Your task to perform on an android device: install app "Nova Launcher" Image 0: 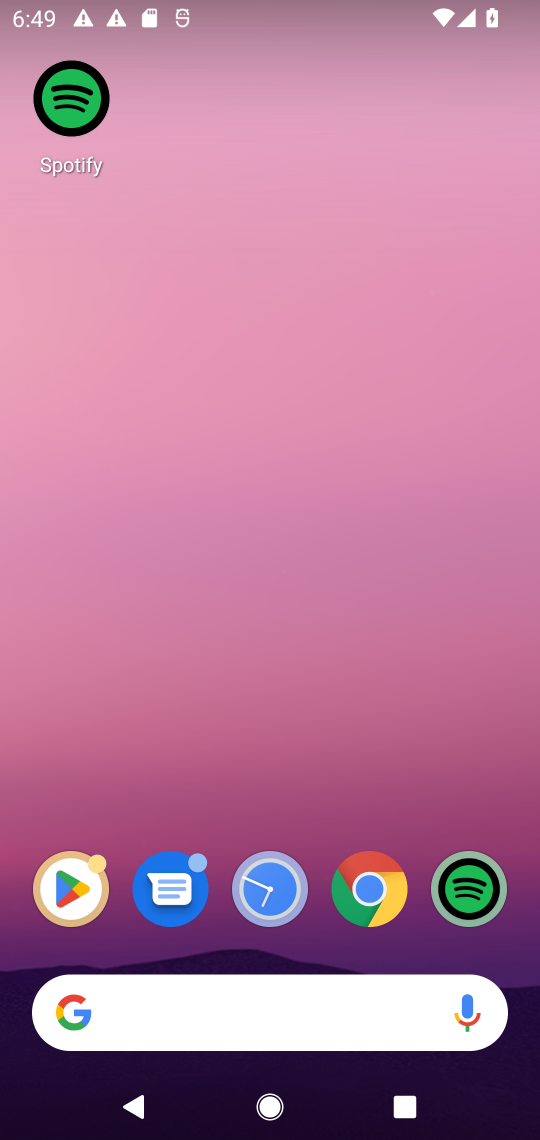
Step 0: click (110, 67)
Your task to perform on an android device: install app "Nova Launcher" Image 1: 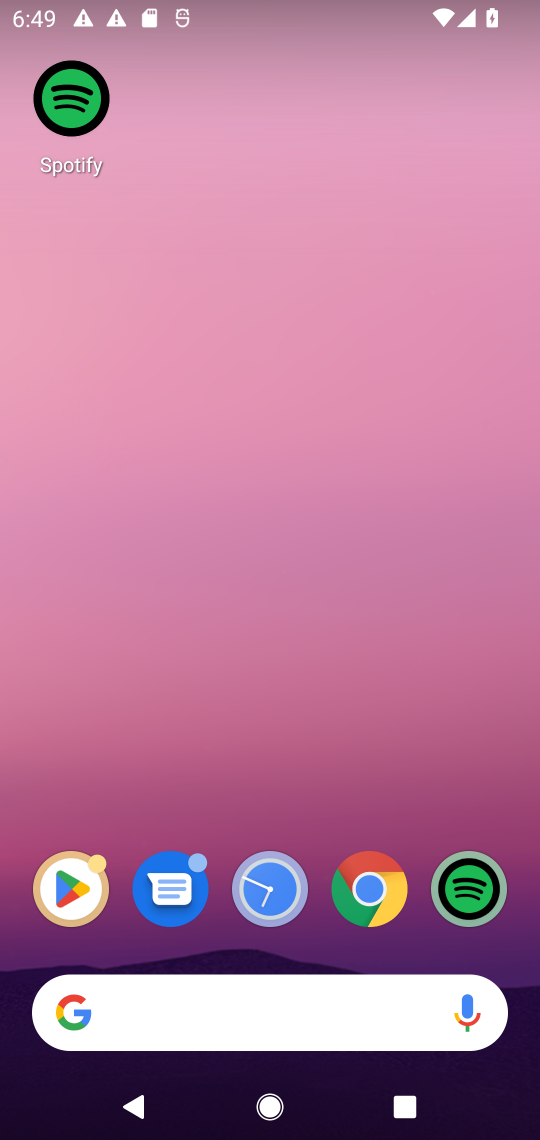
Step 1: drag from (225, 804) to (145, 249)
Your task to perform on an android device: install app "Nova Launcher" Image 2: 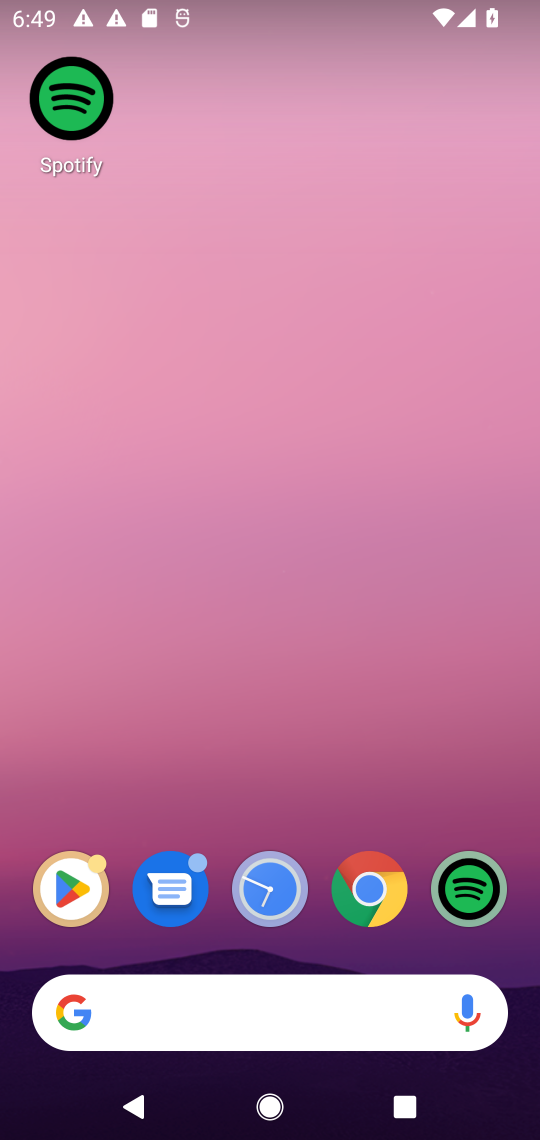
Step 2: drag from (270, 638) to (237, 363)
Your task to perform on an android device: install app "Nova Launcher" Image 3: 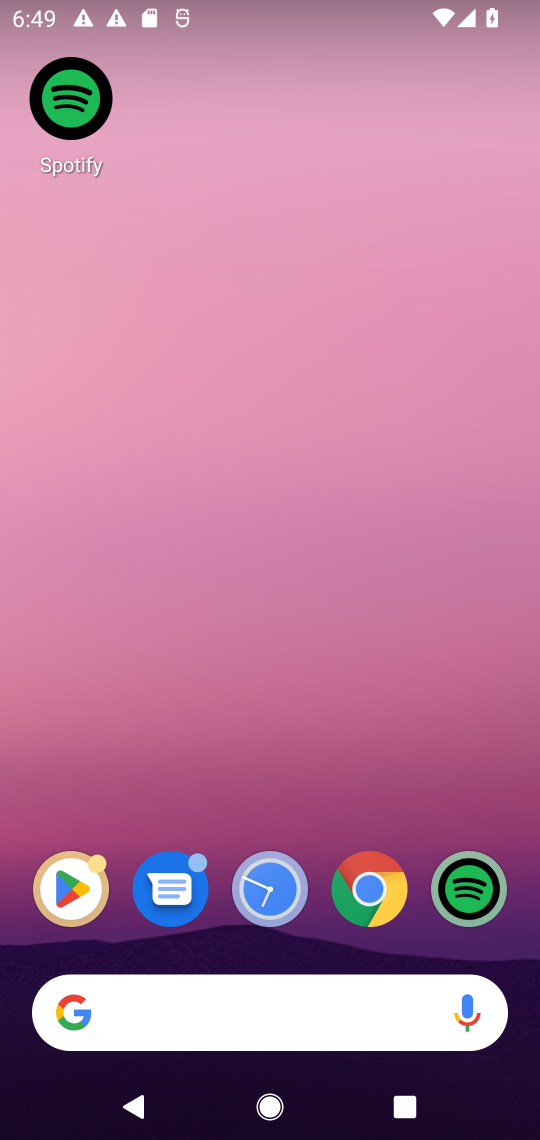
Step 3: drag from (244, 877) to (199, 256)
Your task to perform on an android device: install app "Nova Launcher" Image 4: 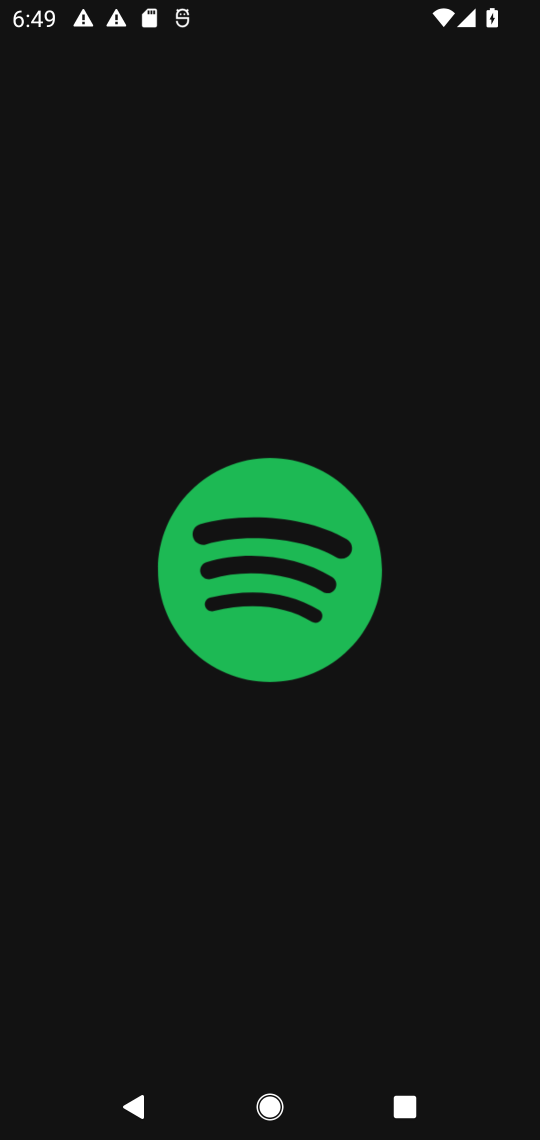
Step 4: drag from (294, 897) to (207, 349)
Your task to perform on an android device: install app "Nova Launcher" Image 5: 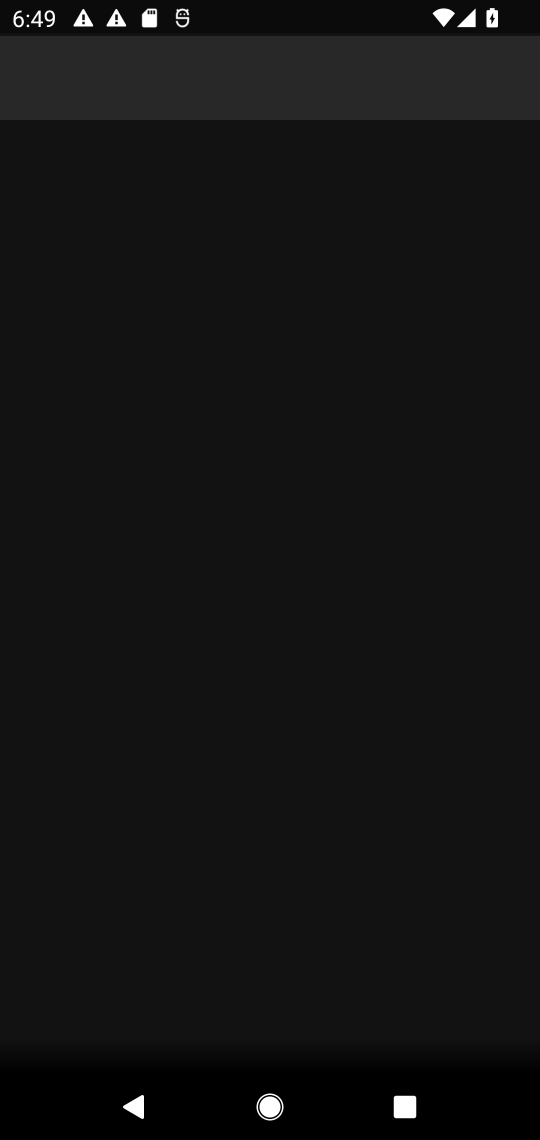
Step 5: press back button
Your task to perform on an android device: install app "Nova Launcher" Image 6: 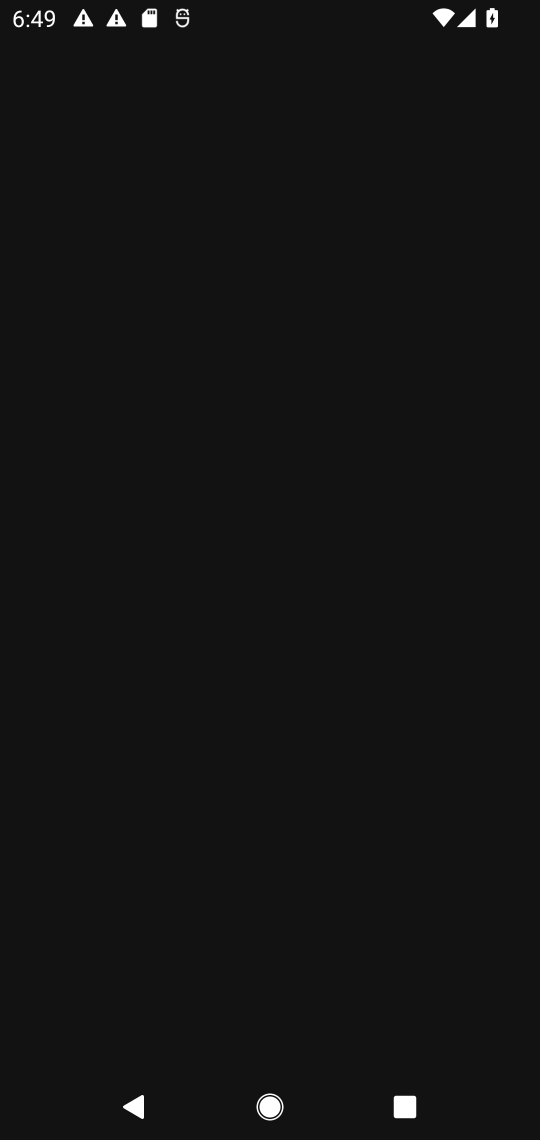
Step 6: press back button
Your task to perform on an android device: install app "Nova Launcher" Image 7: 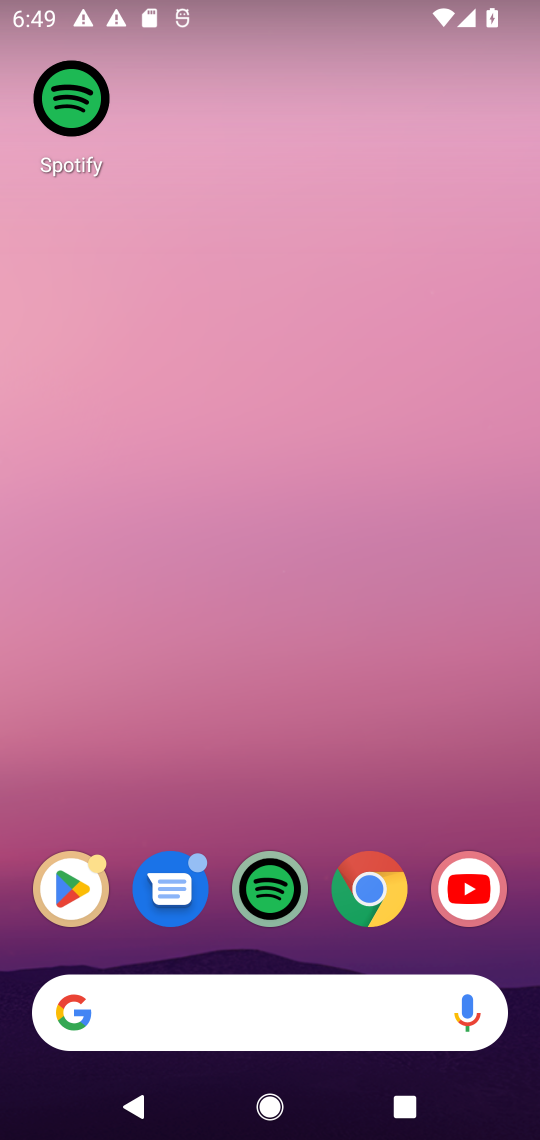
Step 7: drag from (268, 876) to (205, 269)
Your task to perform on an android device: install app "Nova Launcher" Image 8: 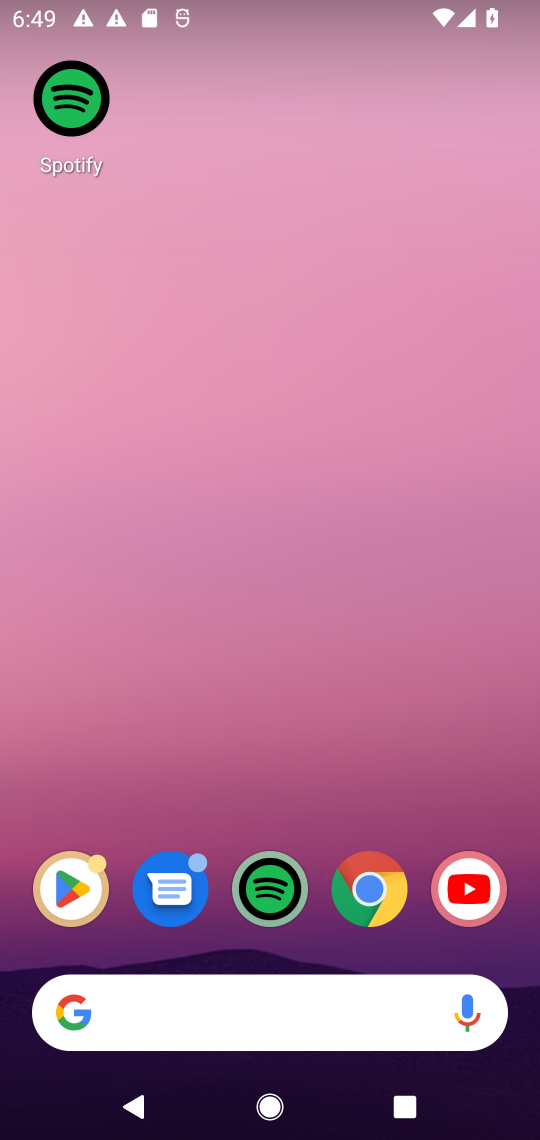
Step 8: click (350, 397)
Your task to perform on an android device: install app "Nova Launcher" Image 9: 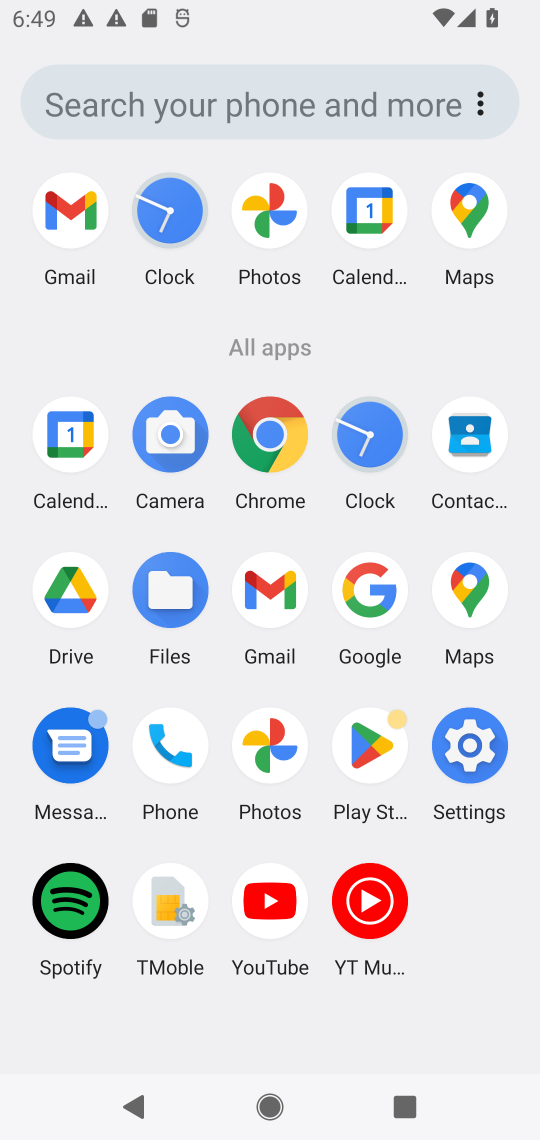
Step 9: click (90, 95)
Your task to perform on an android device: install app "Nova Launcher" Image 10: 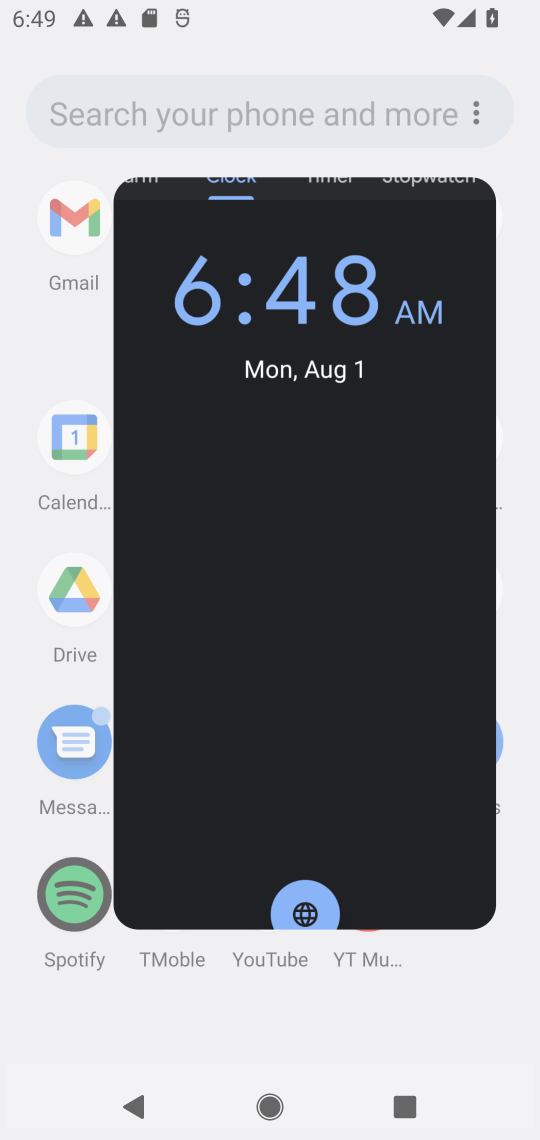
Step 10: drag from (181, 779) to (46, 330)
Your task to perform on an android device: install app "Nova Launcher" Image 11: 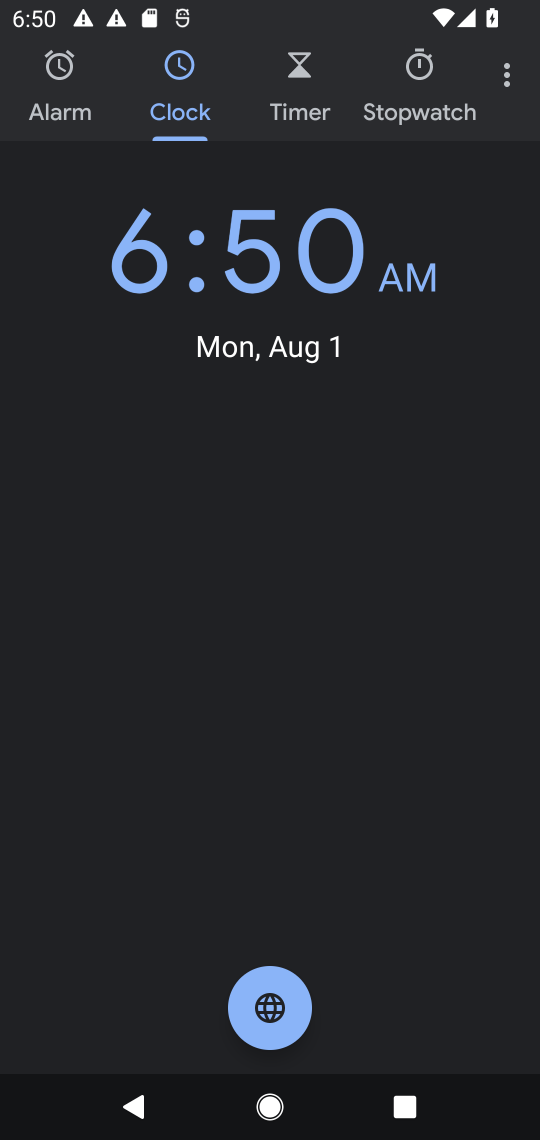
Step 11: press back button
Your task to perform on an android device: install app "Nova Launcher" Image 12: 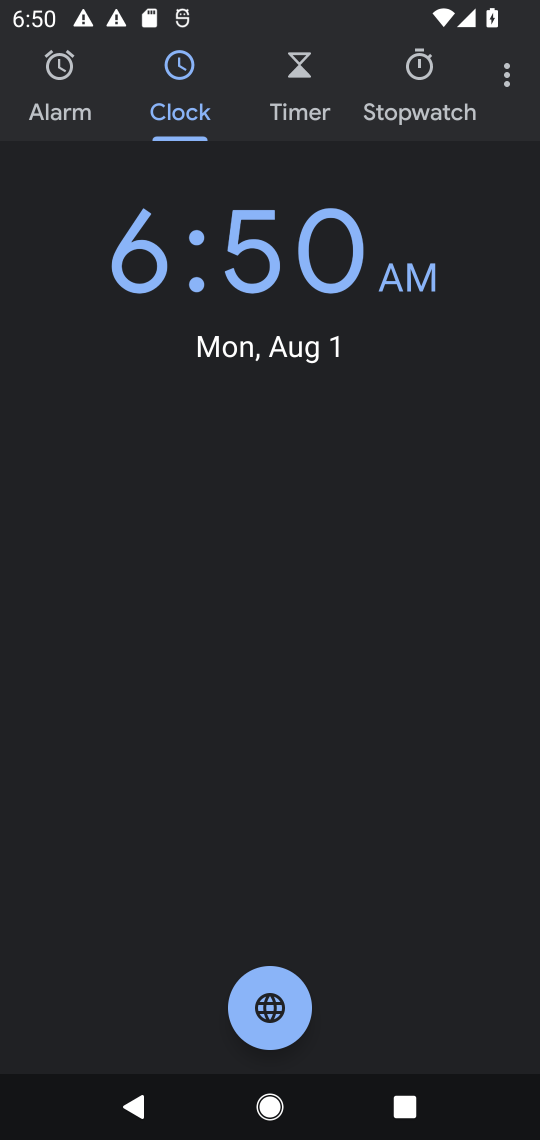
Step 12: press back button
Your task to perform on an android device: install app "Nova Launcher" Image 13: 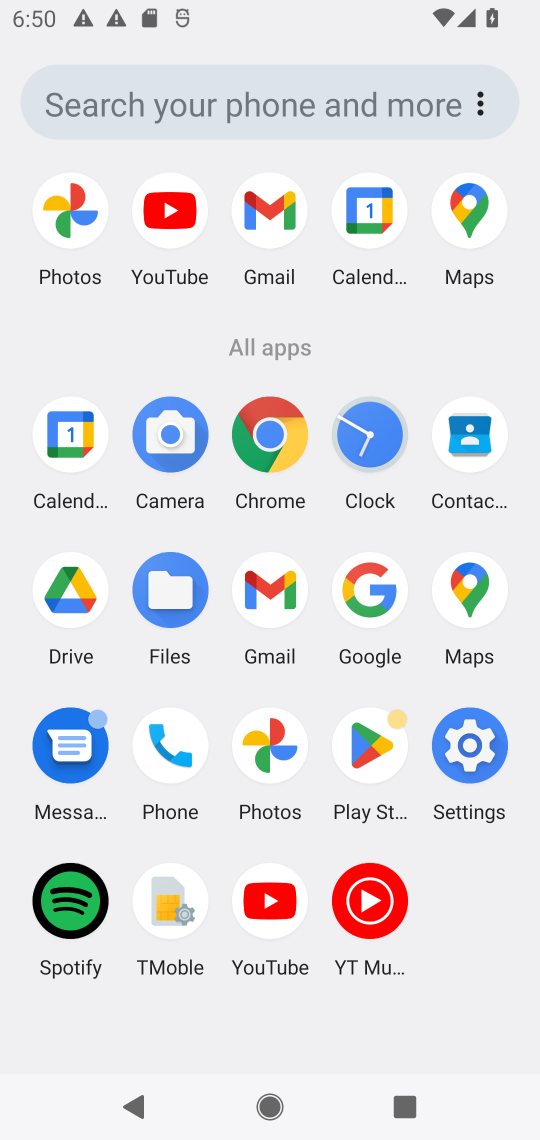
Step 13: press back button
Your task to perform on an android device: install app "Nova Launcher" Image 14: 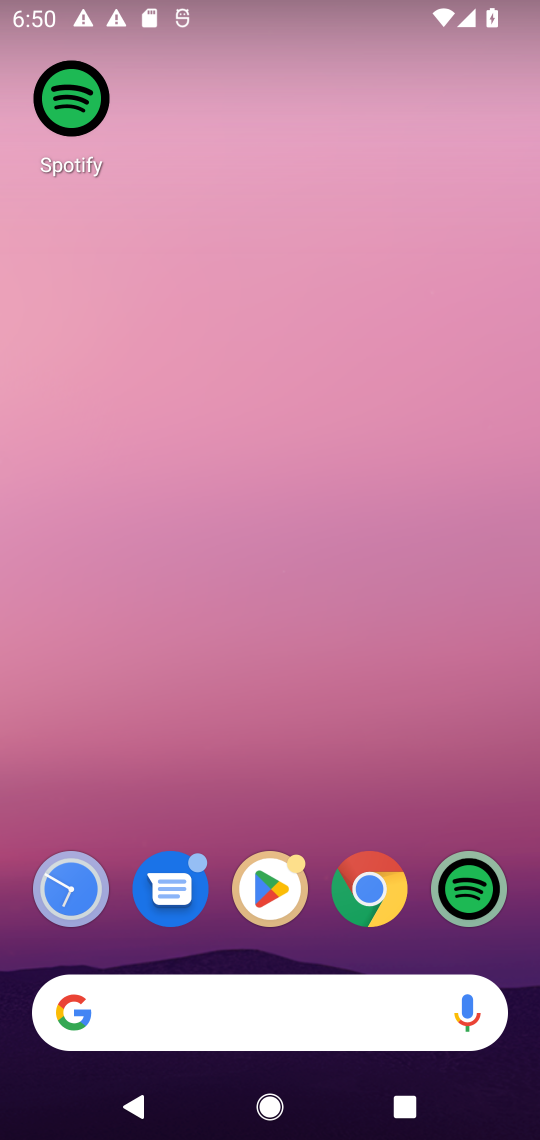
Step 14: press back button
Your task to perform on an android device: install app "Nova Launcher" Image 15: 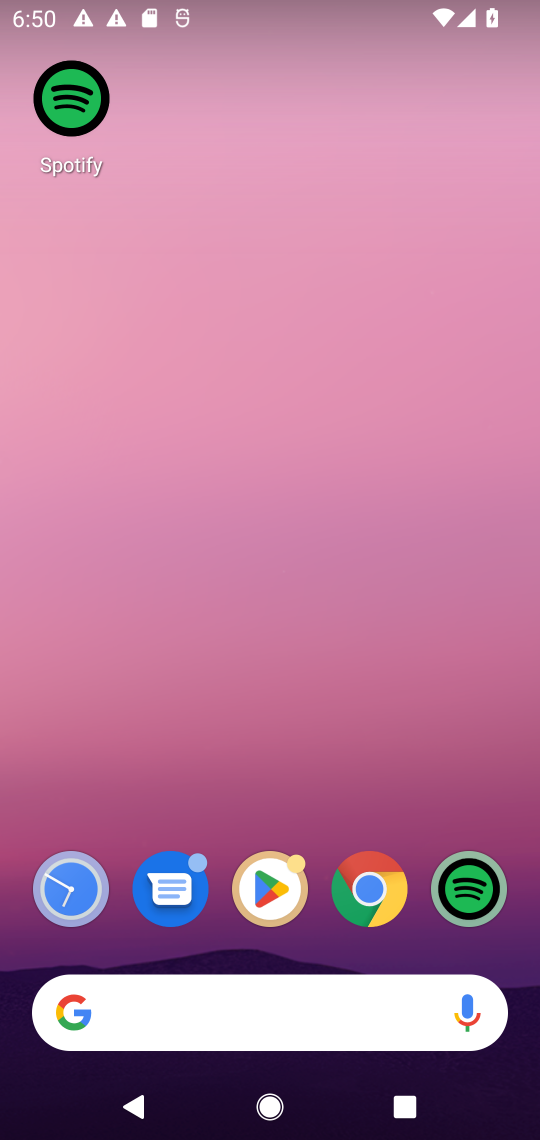
Step 15: press home button
Your task to perform on an android device: install app "Nova Launcher" Image 16: 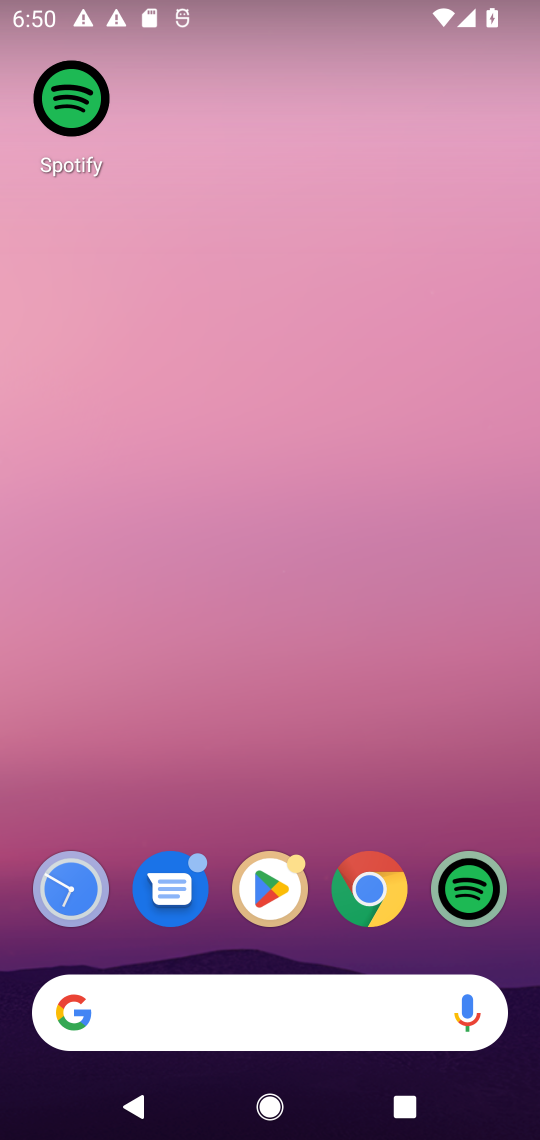
Step 16: press home button
Your task to perform on an android device: install app "Nova Launcher" Image 17: 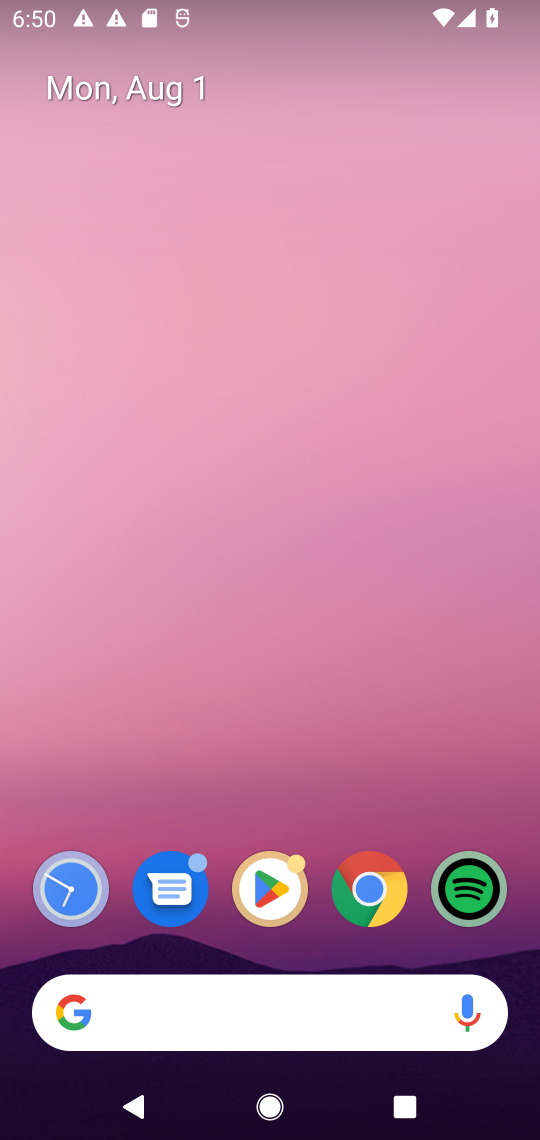
Step 17: drag from (276, 569) to (241, 138)
Your task to perform on an android device: install app "Nova Launcher" Image 18: 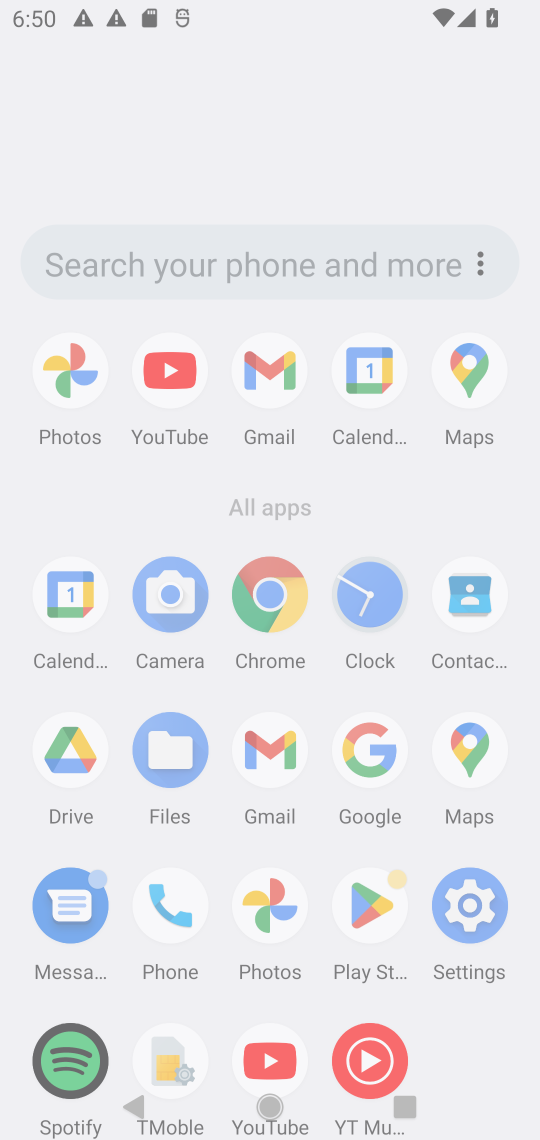
Step 18: drag from (226, 752) to (202, 147)
Your task to perform on an android device: install app "Nova Launcher" Image 19: 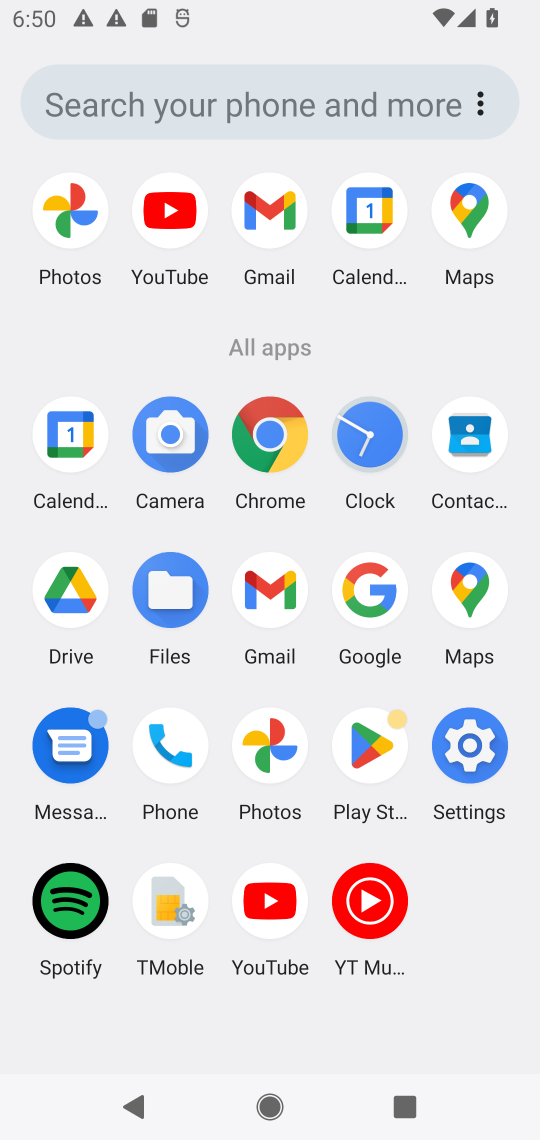
Step 19: click (364, 759)
Your task to perform on an android device: install app "Nova Launcher" Image 20: 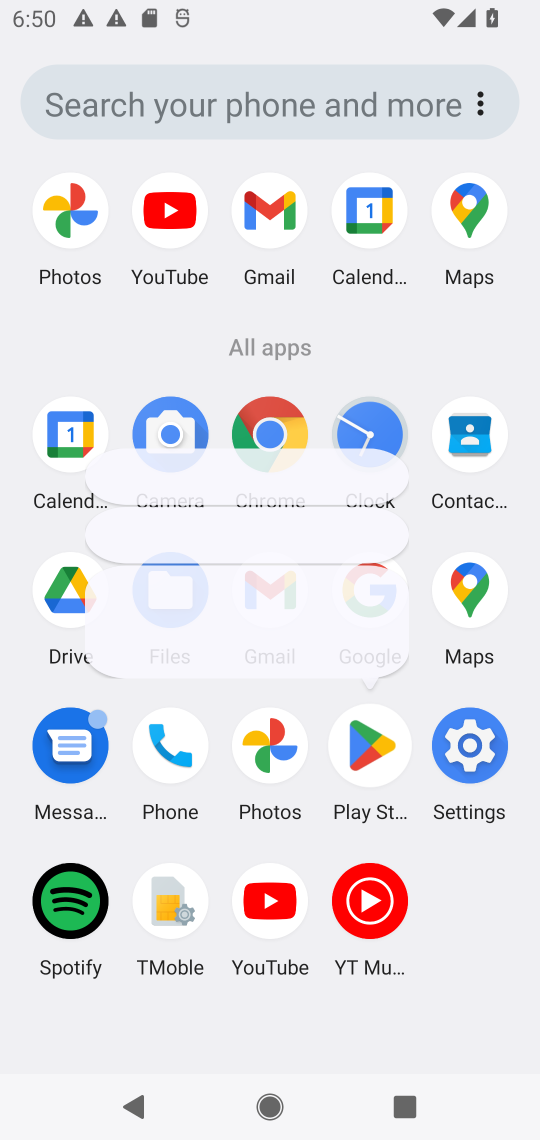
Step 20: click (366, 754)
Your task to perform on an android device: install app "Nova Launcher" Image 21: 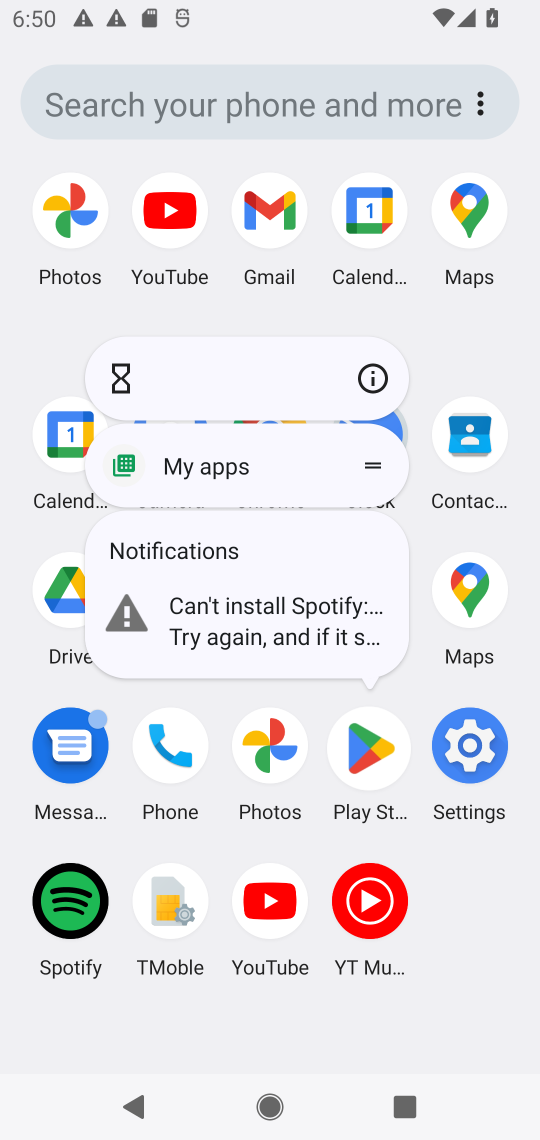
Step 21: click (368, 748)
Your task to perform on an android device: install app "Nova Launcher" Image 22: 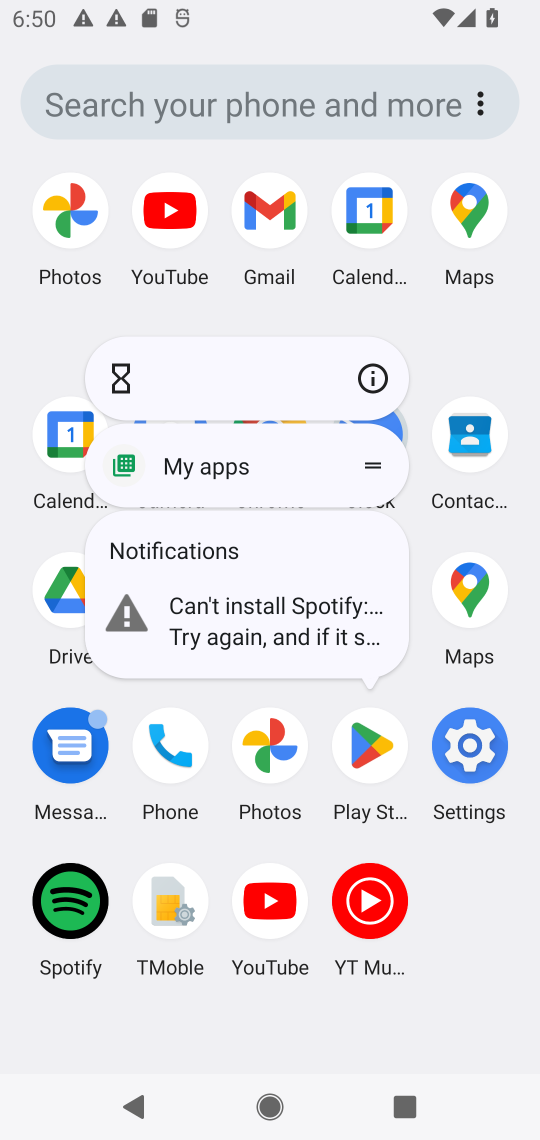
Step 22: click (363, 745)
Your task to perform on an android device: install app "Nova Launcher" Image 23: 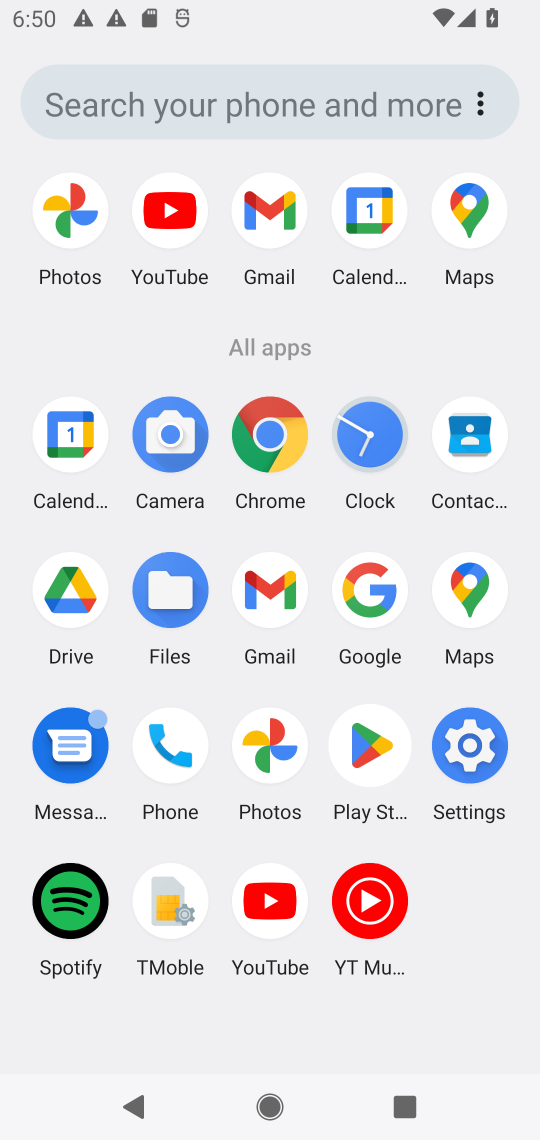
Step 23: click (361, 742)
Your task to perform on an android device: install app "Nova Launcher" Image 24: 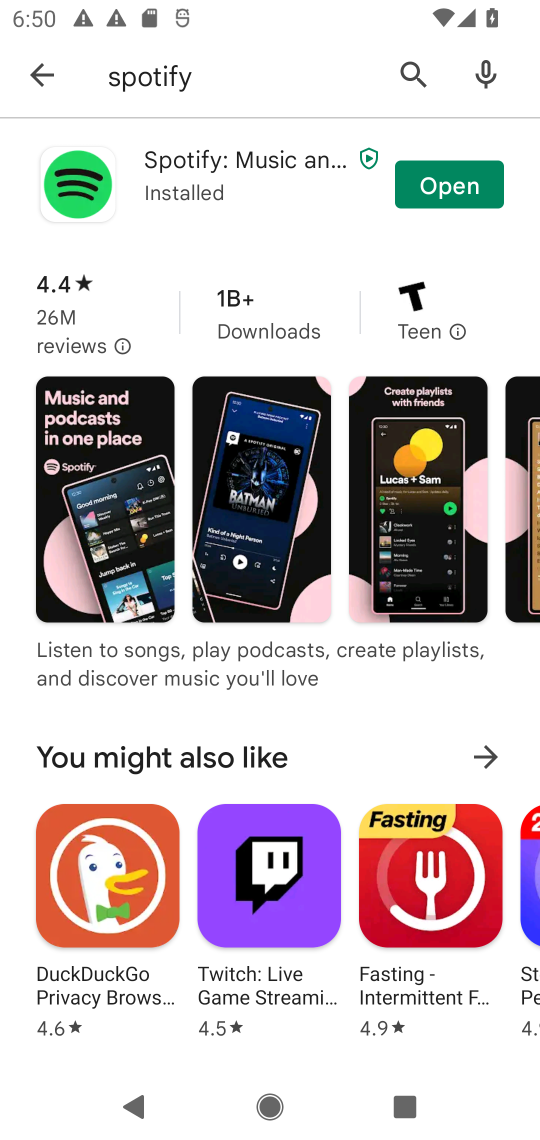
Step 24: click (56, 67)
Your task to perform on an android device: install app "Nova Launcher" Image 25: 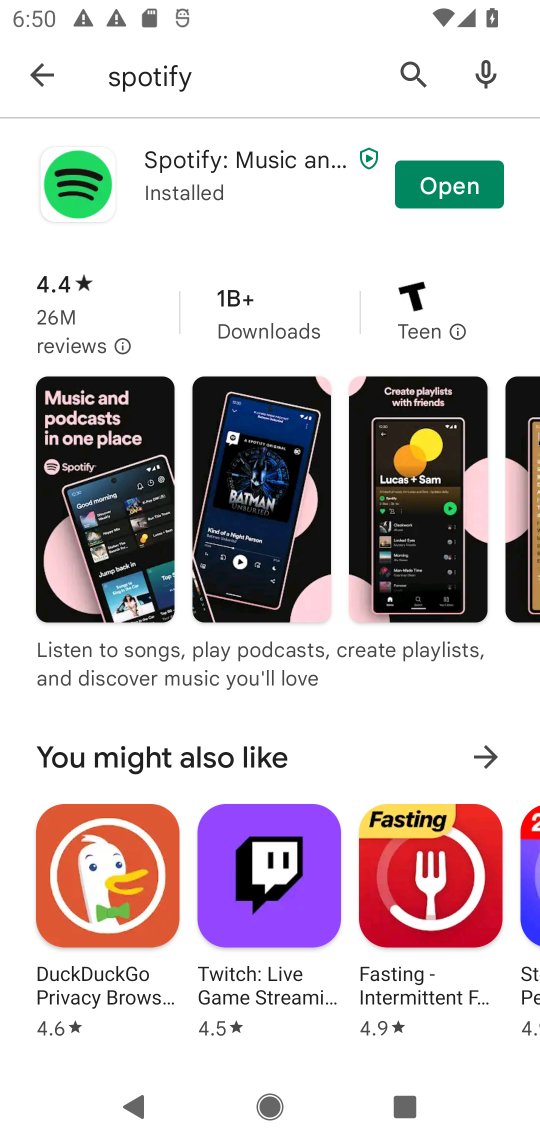
Step 25: click (208, 59)
Your task to perform on an android device: install app "Nova Launcher" Image 26: 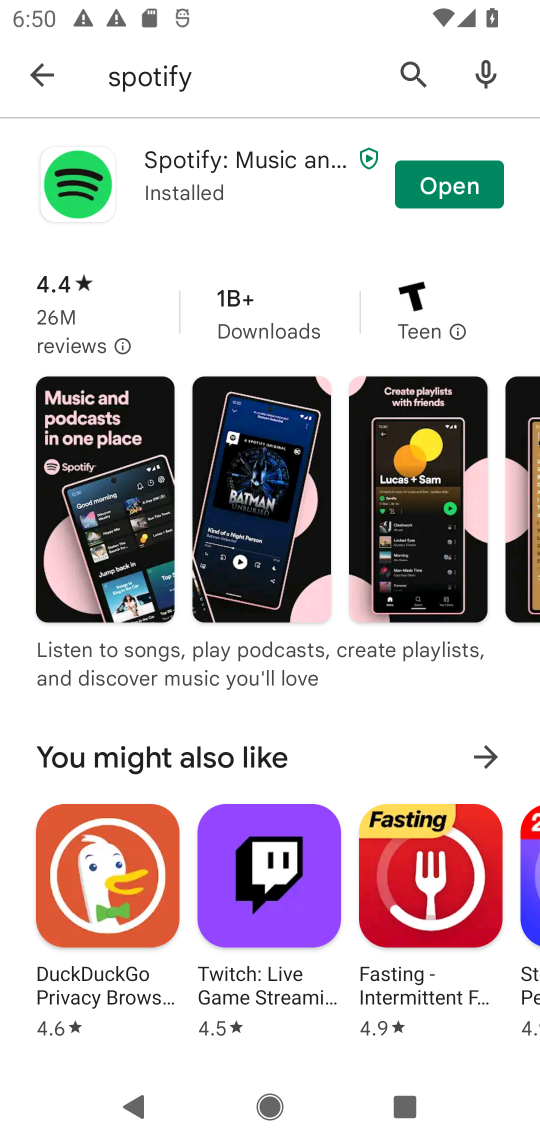
Step 26: click (31, 67)
Your task to perform on an android device: install app "Nova Launcher" Image 27: 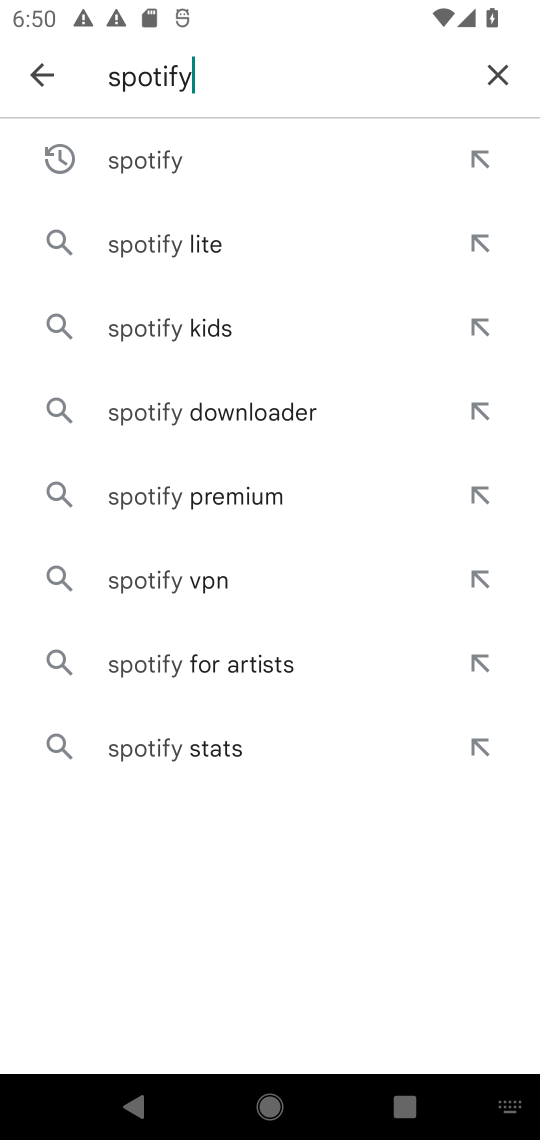
Step 27: click (31, 67)
Your task to perform on an android device: install app "Nova Launcher" Image 28: 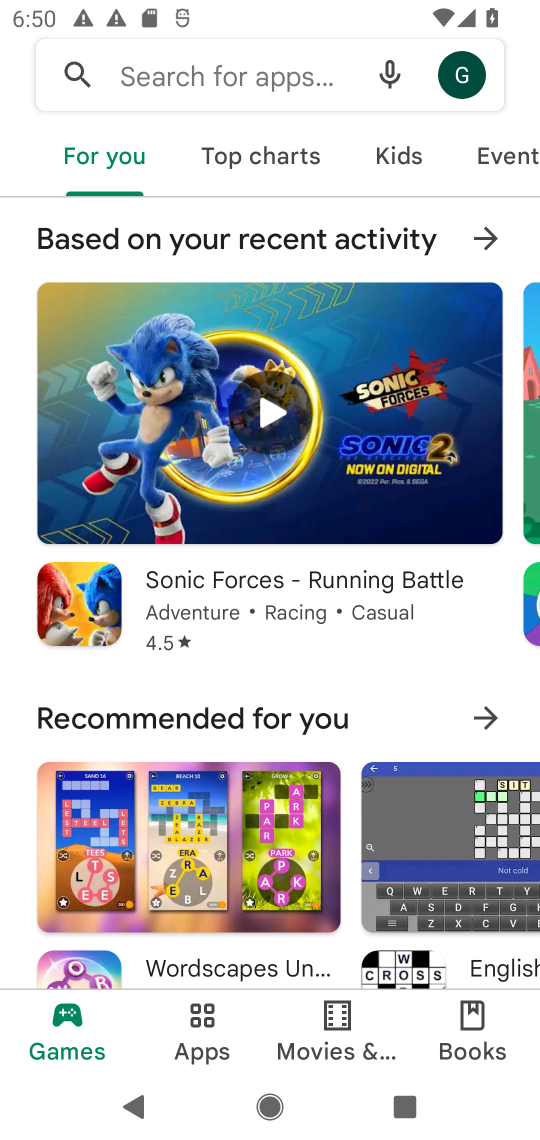
Step 28: click (181, 63)
Your task to perform on an android device: install app "Nova Launcher" Image 29: 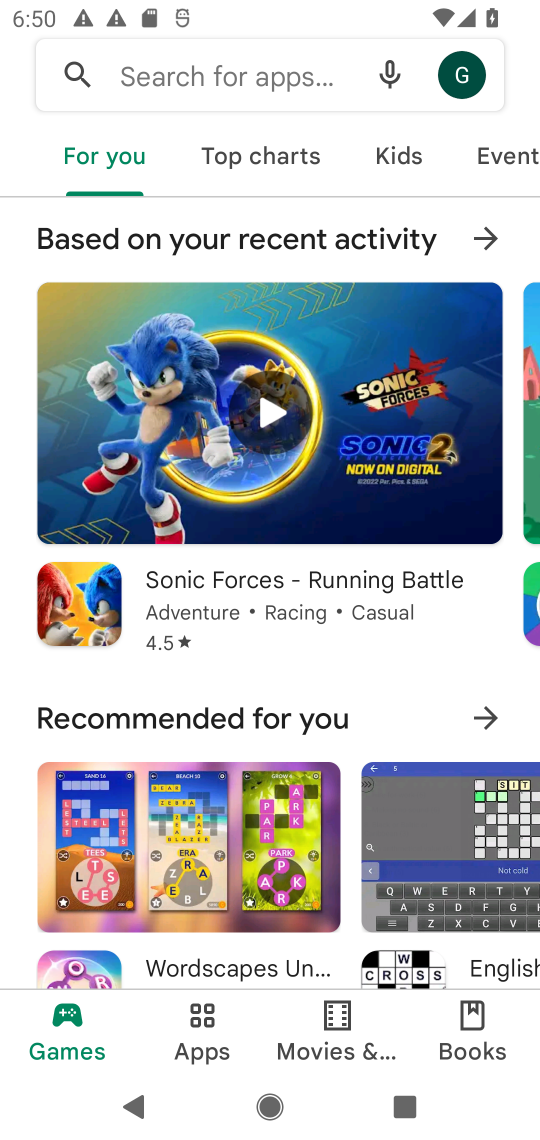
Step 29: click (164, 70)
Your task to perform on an android device: install app "Nova Launcher" Image 30: 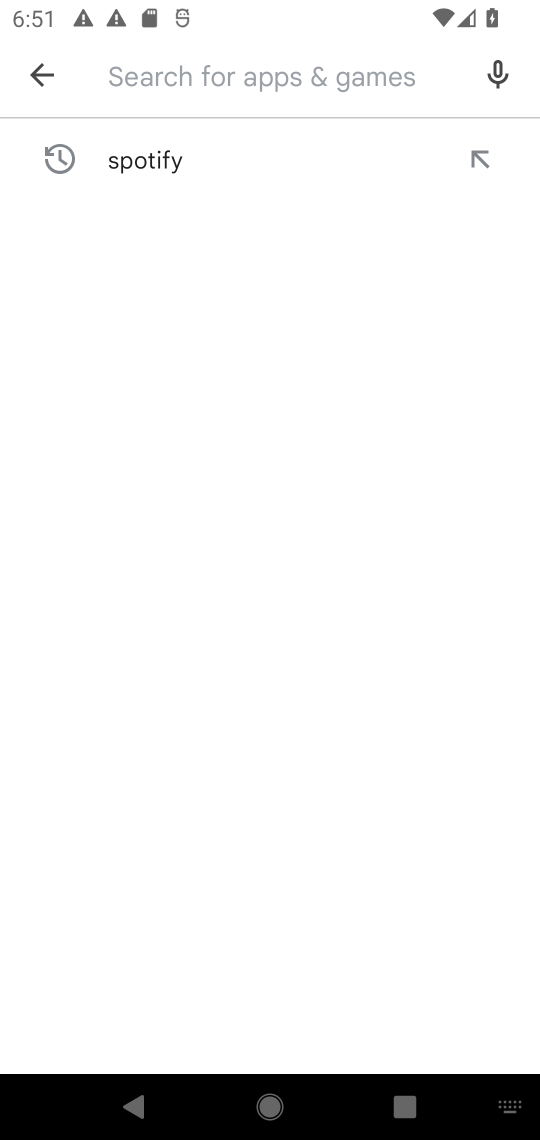
Step 30: type "Nova Launcher"
Your task to perform on an android device: install app "Nova Launcher" Image 31: 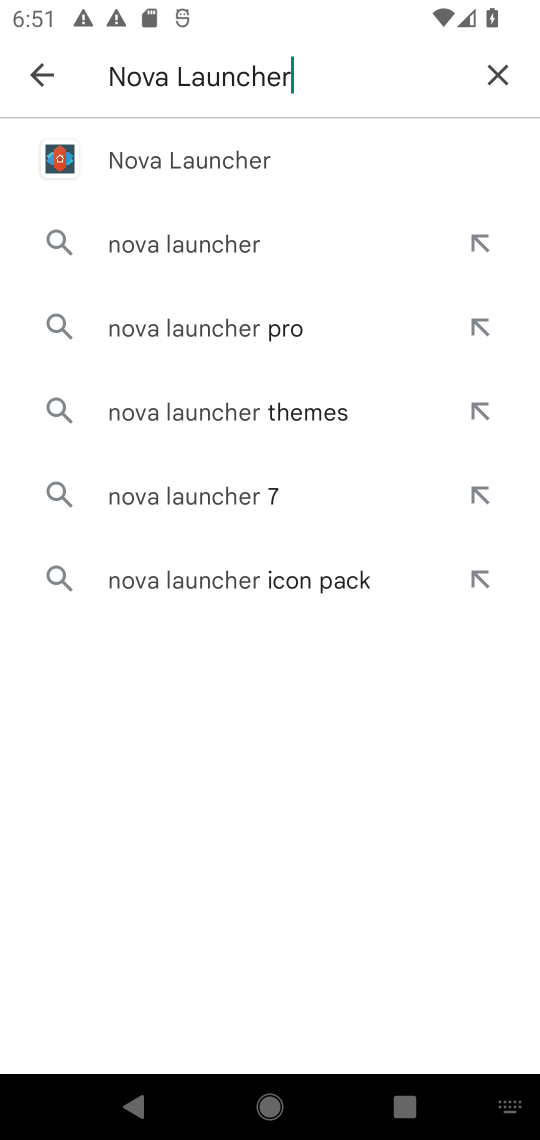
Step 31: click (180, 167)
Your task to perform on an android device: install app "Nova Launcher" Image 32: 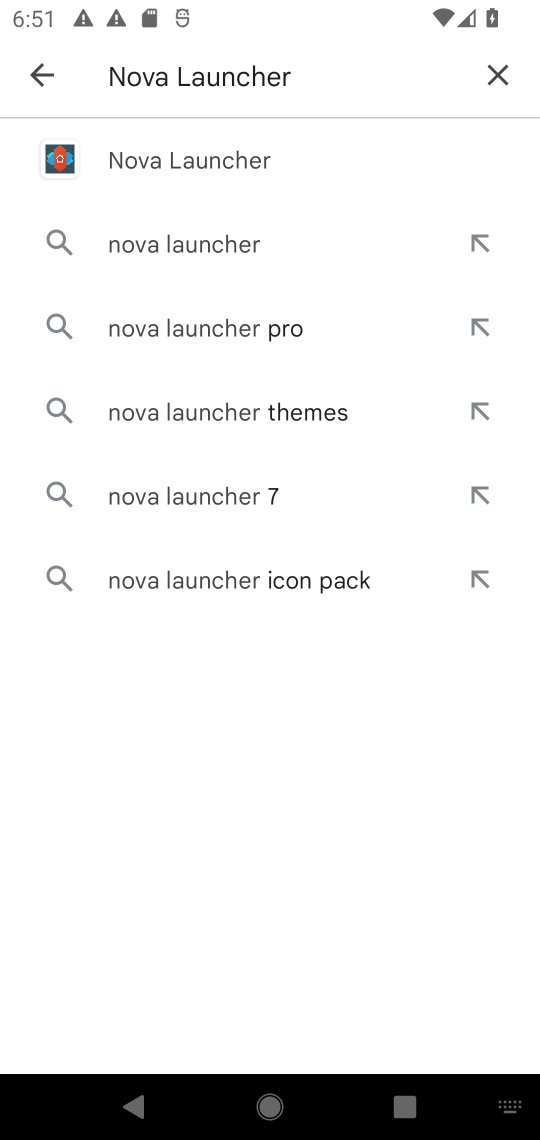
Step 32: click (178, 165)
Your task to perform on an android device: install app "Nova Launcher" Image 33: 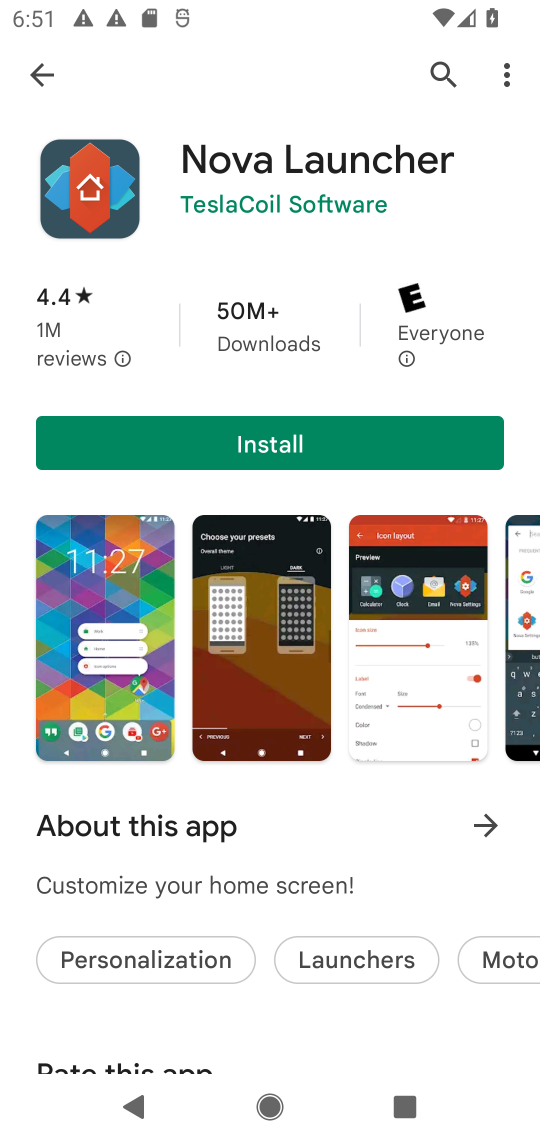
Step 33: click (293, 443)
Your task to perform on an android device: install app "Nova Launcher" Image 34: 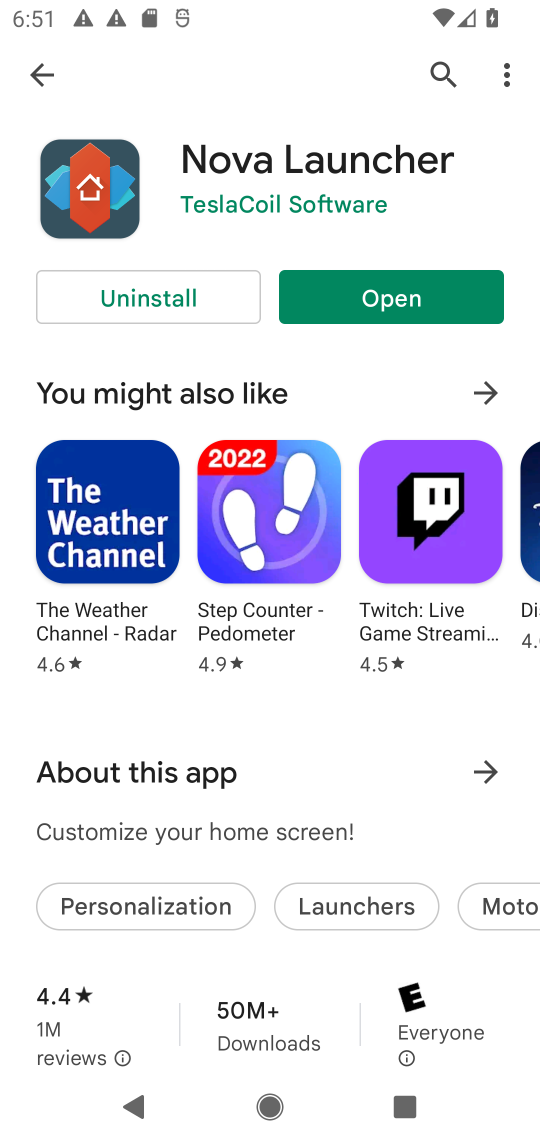
Step 34: click (394, 299)
Your task to perform on an android device: install app "Nova Launcher" Image 35: 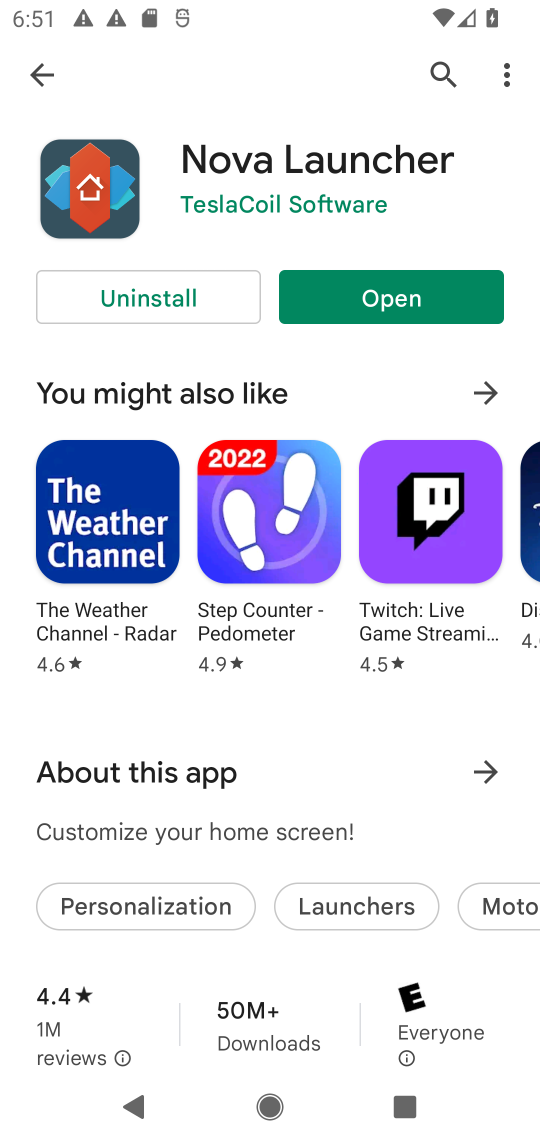
Step 35: click (397, 302)
Your task to perform on an android device: install app "Nova Launcher" Image 36: 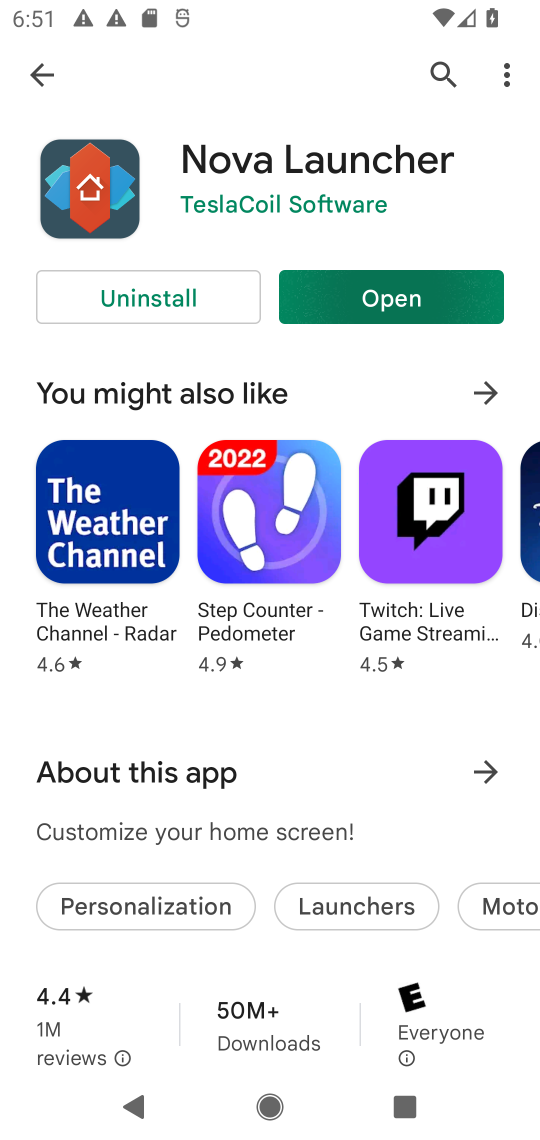
Step 36: click (397, 302)
Your task to perform on an android device: install app "Nova Launcher" Image 37: 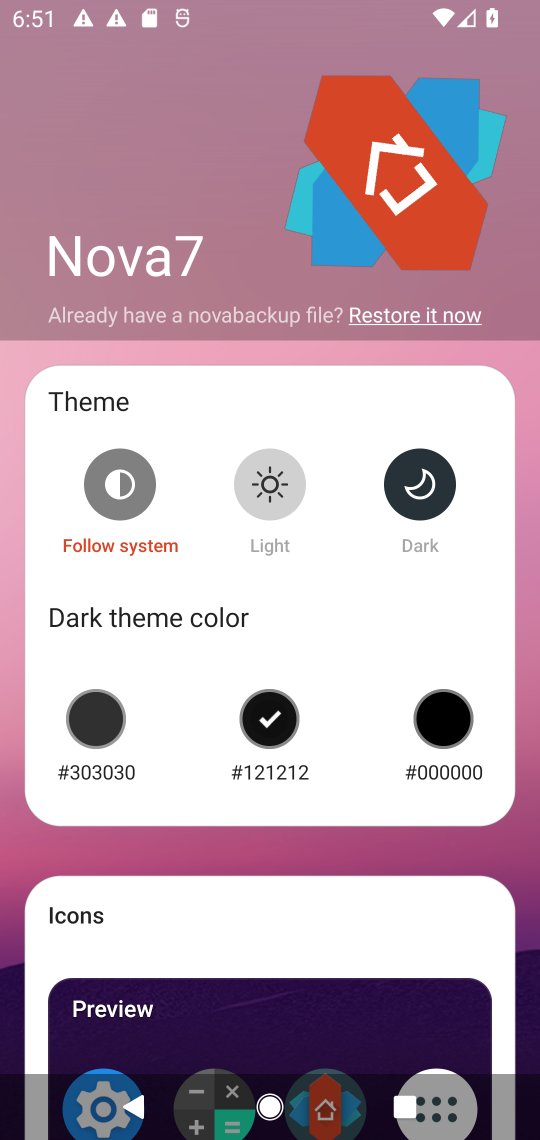
Step 37: task complete